Your task to perform on an android device: toggle show notifications on the lock screen Image 0: 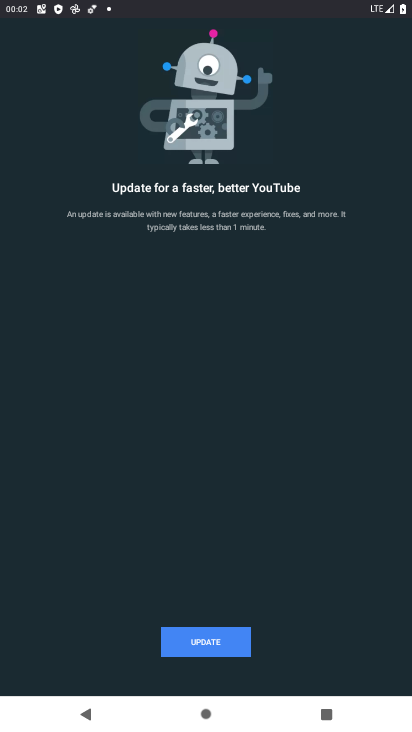
Step 0: press home button
Your task to perform on an android device: toggle show notifications on the lock screen Image 1: 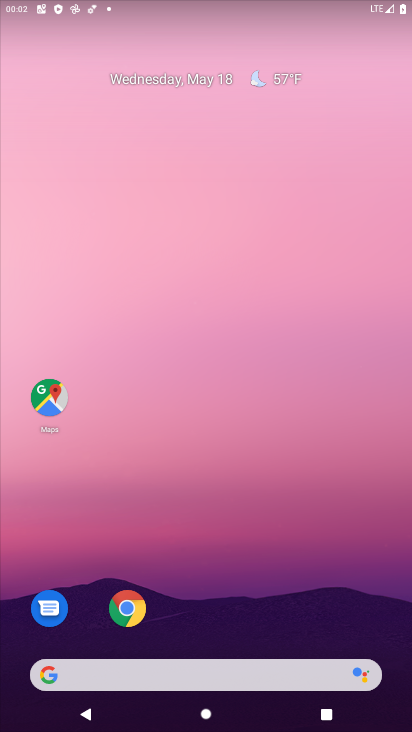
Step 1: drag from (216, 529) to (157, 81)
Your task to perform on an android device: toggle show notifications on the lock screen Image 2: 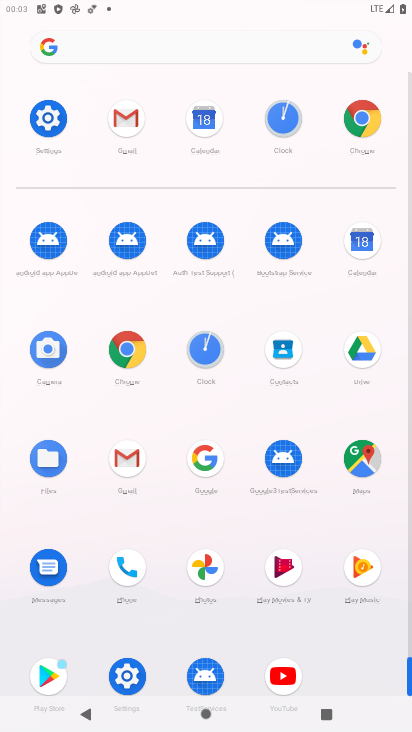
Step 2: click (51, 118)
Your task to perform on an android device: toggle show notifications on the lock screen Image 3: 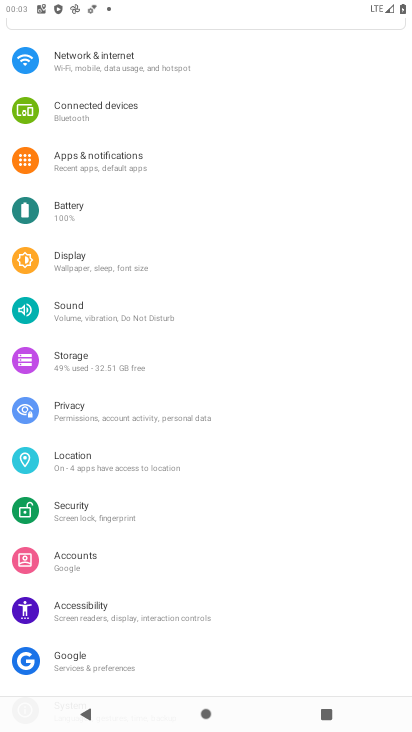
Step 3: click (109, 153)
Your task to perform on an android device: toggle show notifications on the lock screen Image 4: 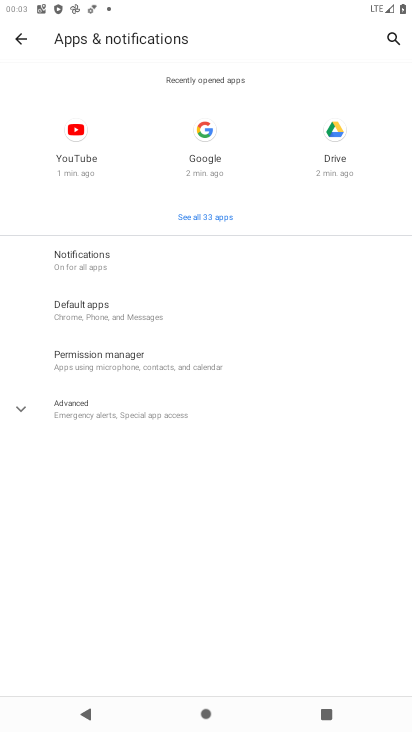
Step 4: click (87, 256)
Your task to perform on an android device: toggle show notifications on the lock screen Image 5: 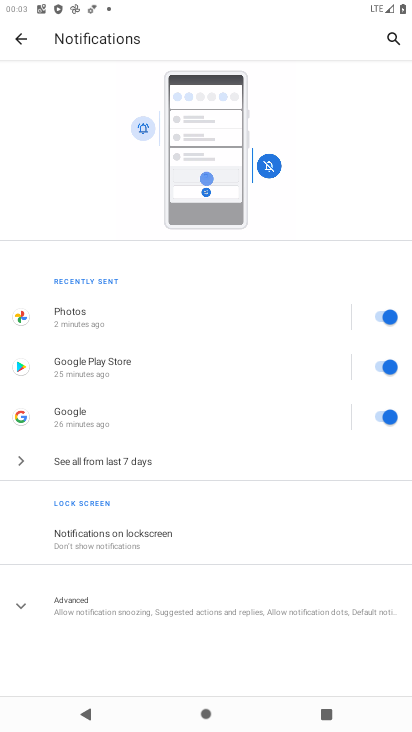
Step 5: click (118, 538)
Your task to perform on an android device: toggle show notifications on the lock screen Image 6: 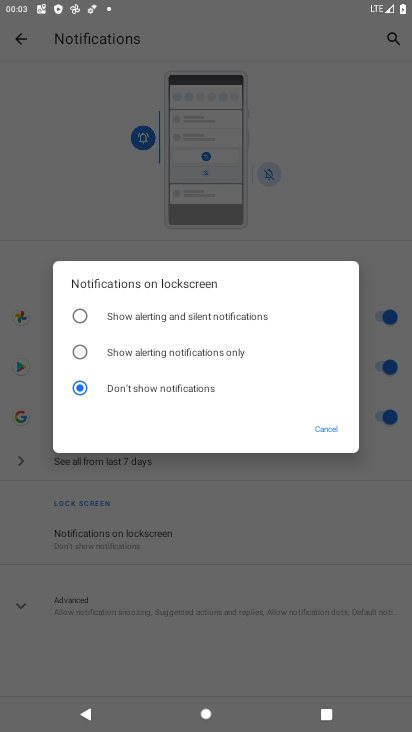
Step 6: click (76, 315)
Your task to perform on an android device: toggle show notifications on the lock screen Image 7: 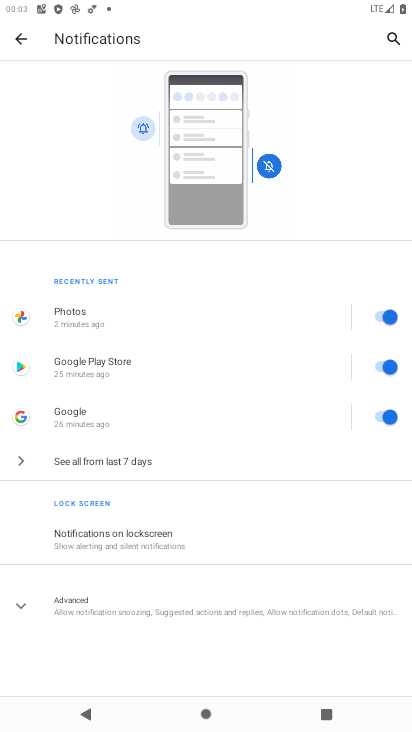
Step 7: task complete